Your task to perform on an android device: Go to Android settings Image 0: 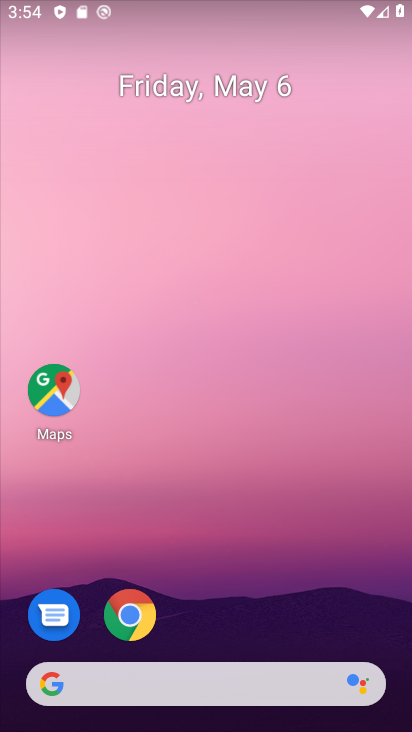
Step 0: drag from (243, 660) to (165, 51)
Your task to perform on an android device: Go to Android settings Image 1: 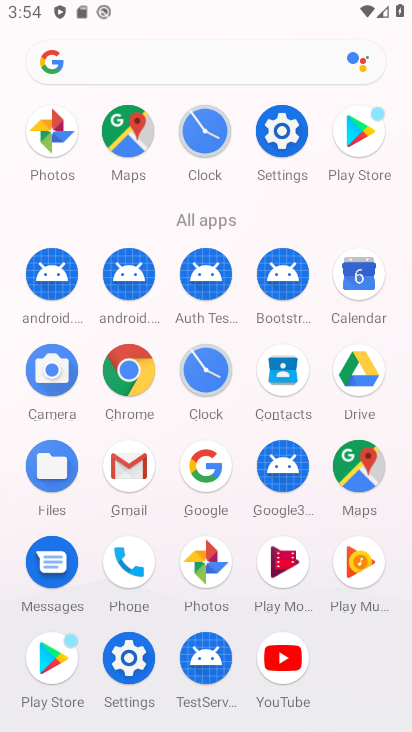
Step 1: click (275, 149)
Your task to perform on an android device: Go to Android settings Image 2: 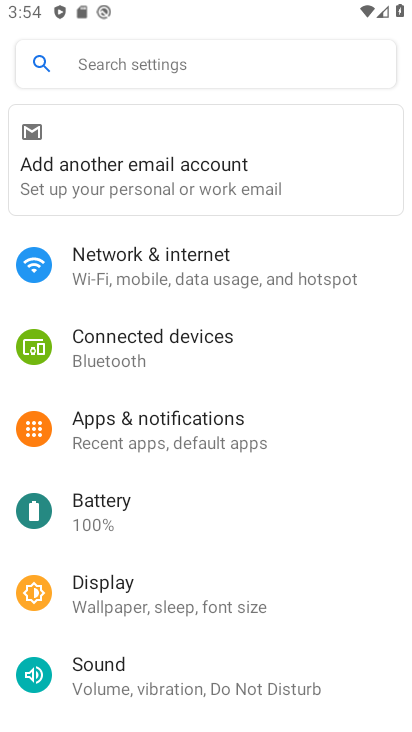
Step 2: drag from (174, 626) to (104, 4)
Your task to perform on an android device: Go to Android settings Image 3: 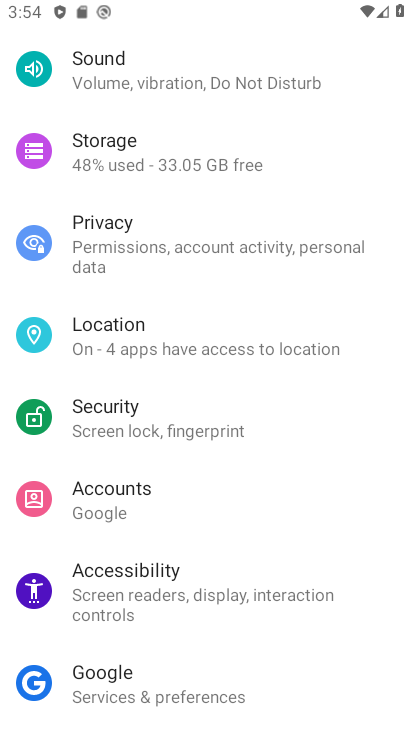
Step 3: drag from (174, 622) to (99, 126)
Your task to perform on an android device: Go to Android settings Image 4: 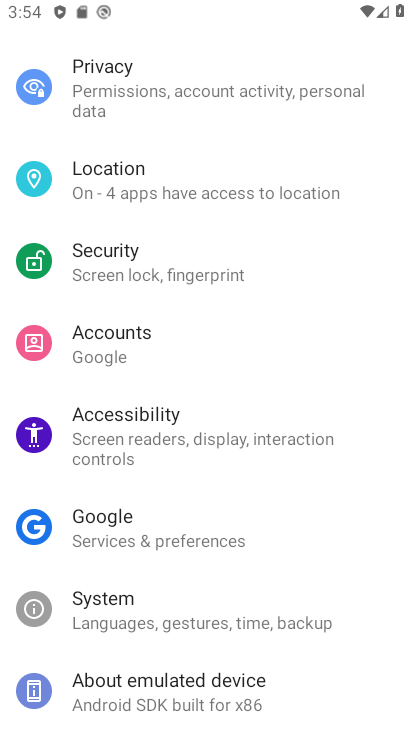
Step 4: click (117, 705)
Your task to perform on an android device: Go to Android settings Image 5: 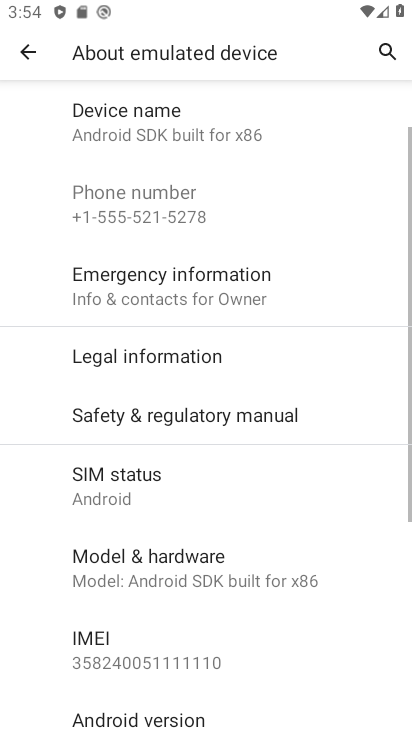
Step 5: drag from (175, 556) to (104, 114)
Your task to perform on an android device: Go to Android settings Image 6: 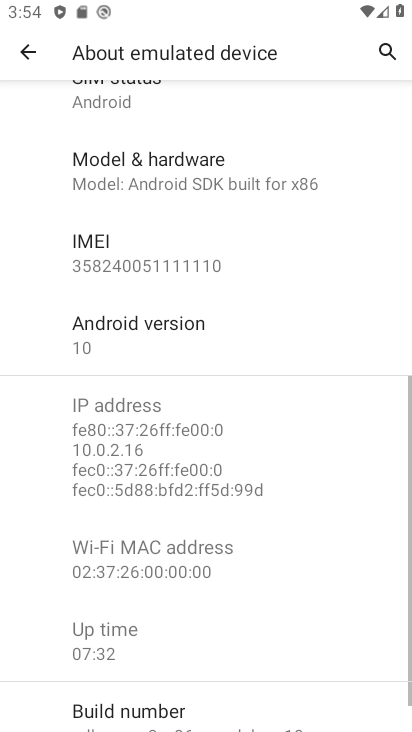
Step 6: click (143, 351)
Your task to perform on an android device: Go to Android settings Image 7: 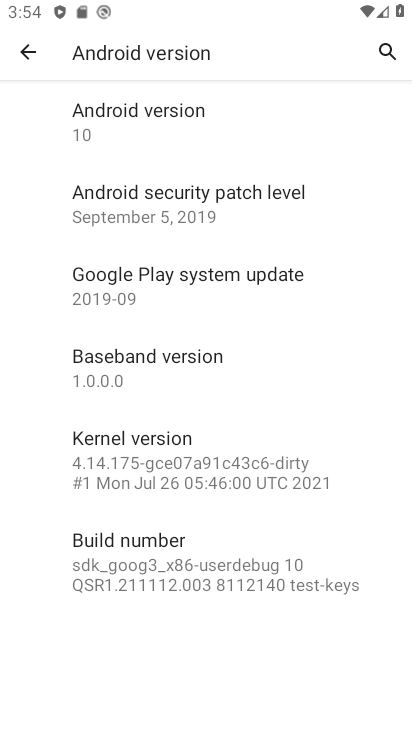
Step 7: click (158, 137)
Your task to perform on an android device: Go to Android settings Image 8: 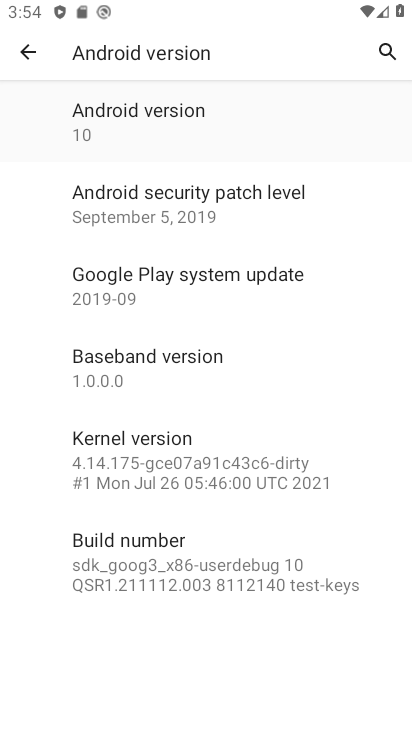
Step 8: task complete